Your task to perform on an android device: open app "Cash App" (install if not already installed) and go to login screen Image 0: 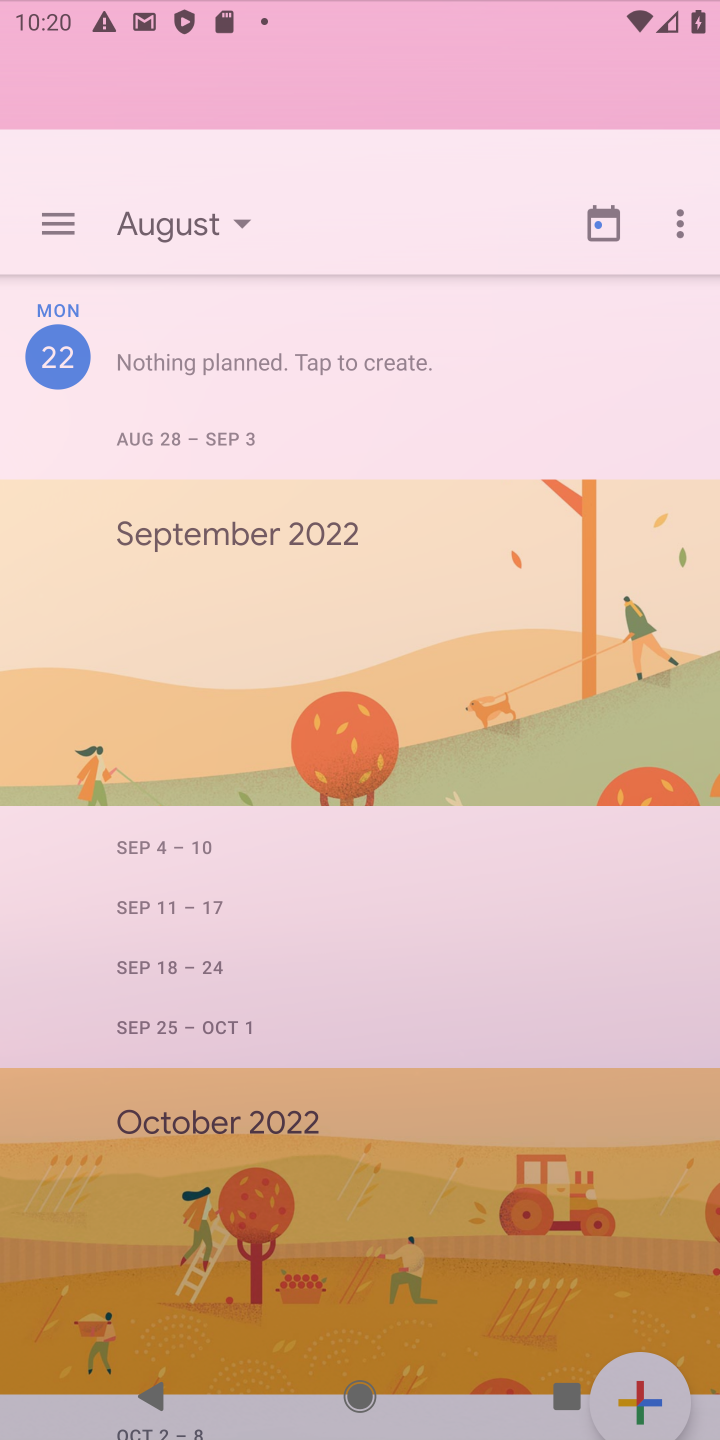
Step 0: click (583, 589)
Your task to perform on an android device: open app "Cash App" (install if not already installed) and go to login screen Image 1: 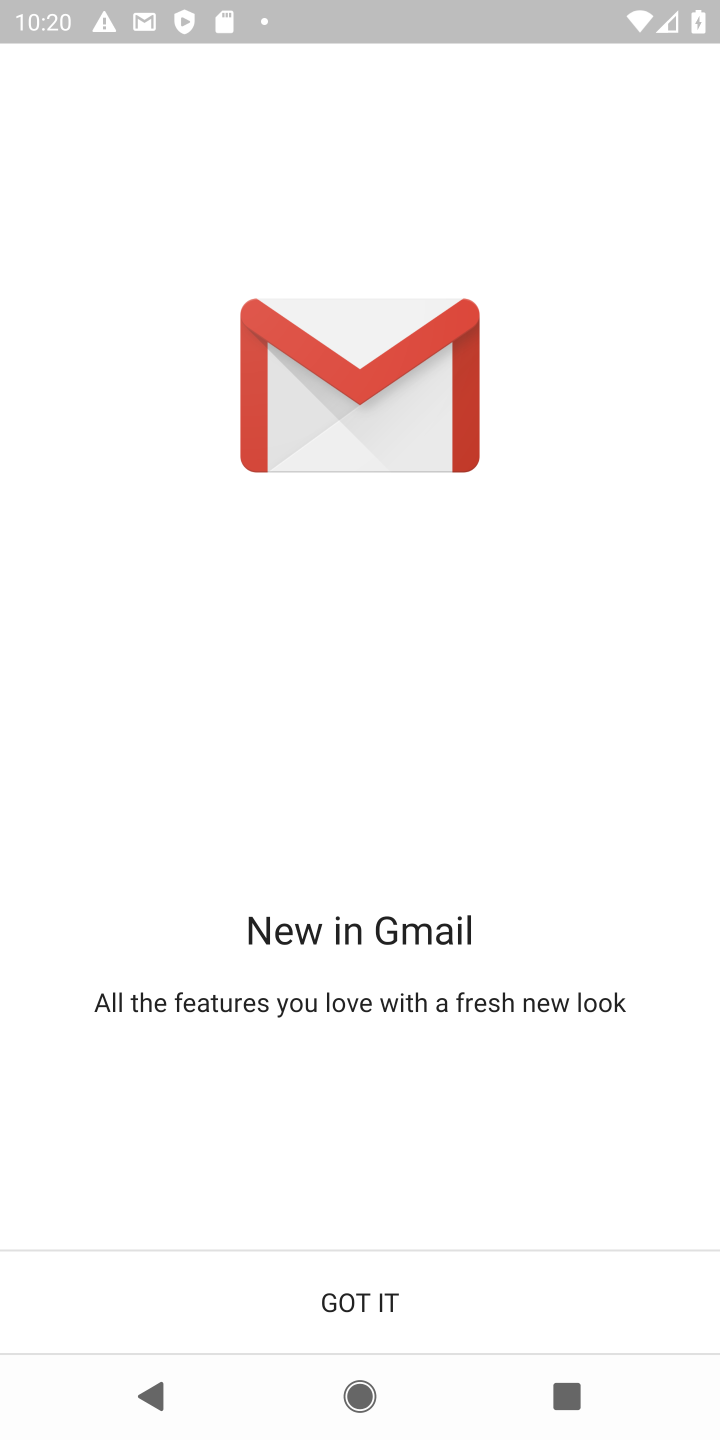
Step 1: press home button
Your task to perform on an android device: open app "Cash App" (install if not already installed) and go to login screen Image 2: 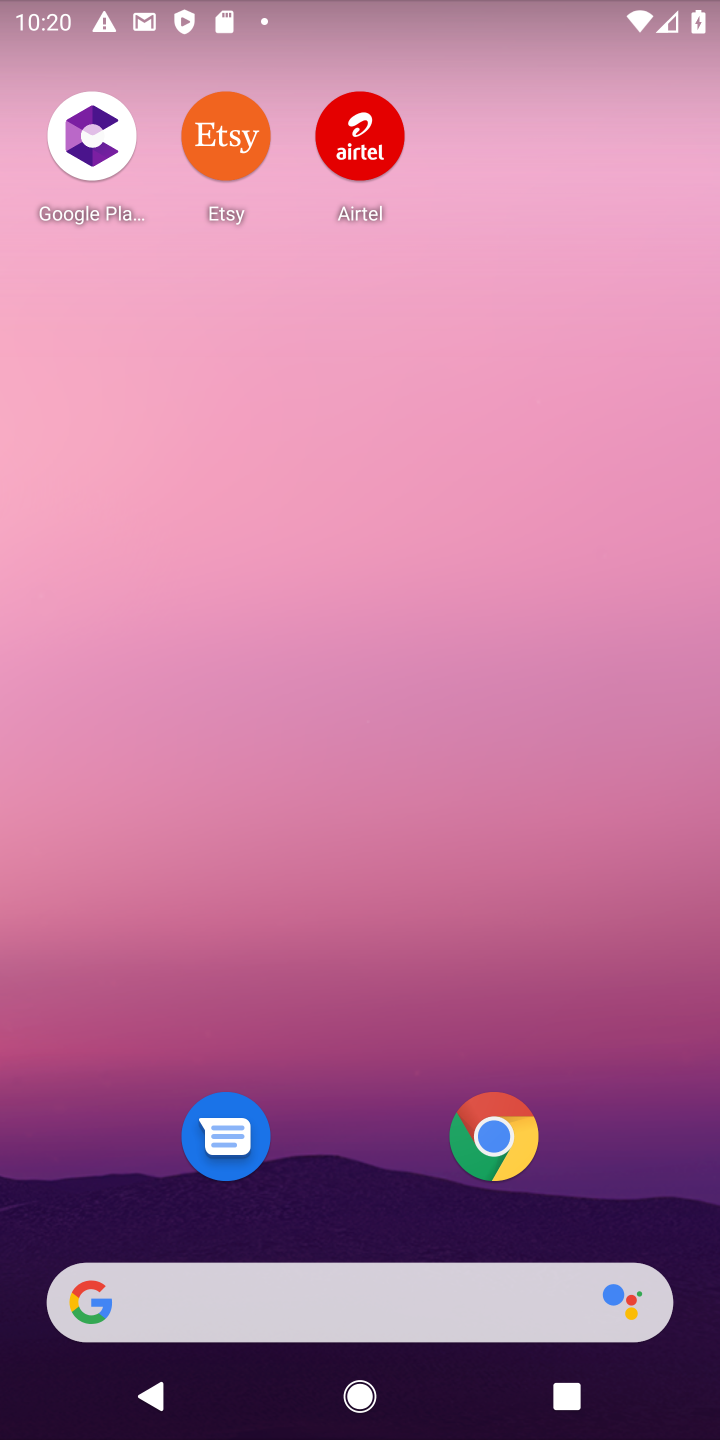
Step 2: drag from (340, 1268) to (274, 141)
Your task to perform on an android device: open app "Cash App" (install if not already installed) and go to login screen Image 3: 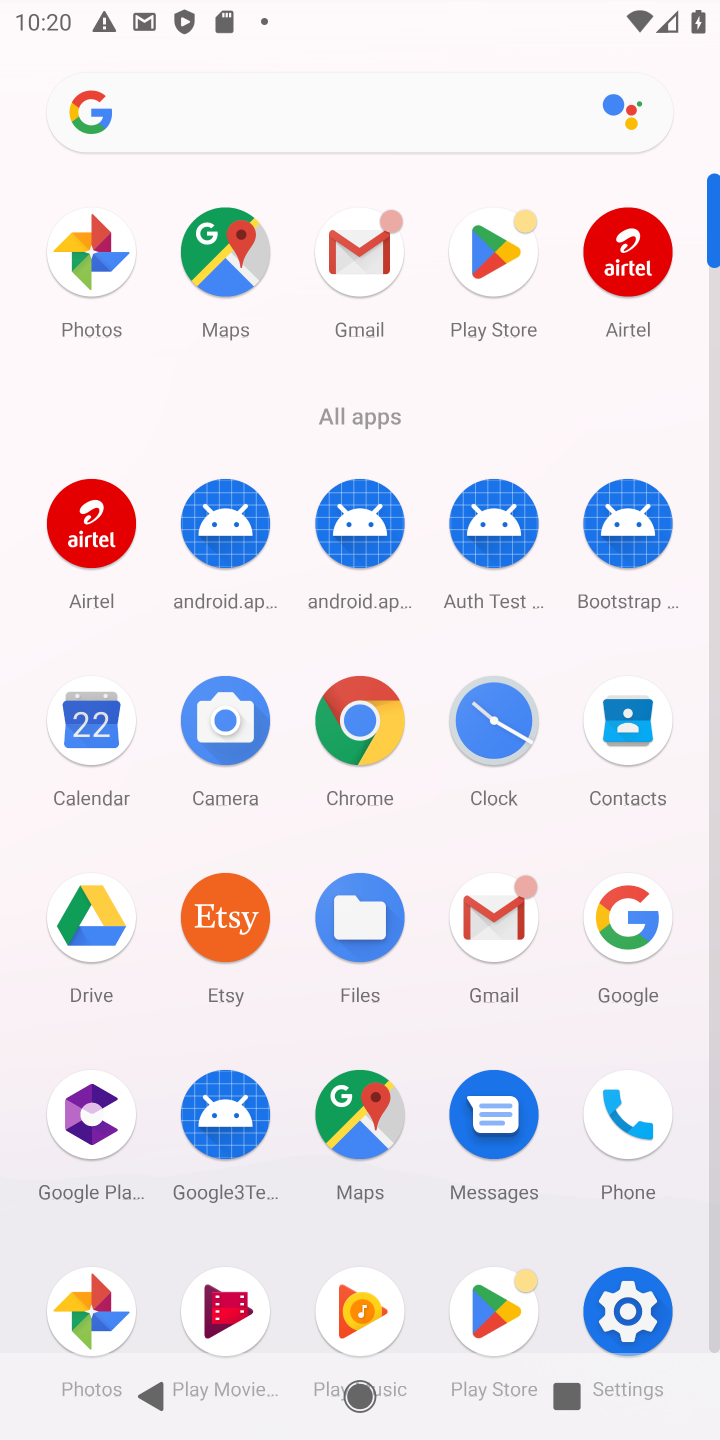
Step 3: click (481, 271)
Your task to perform on an android device: open app "Cash App" (install if not already installed) and go to login screen Image 4: 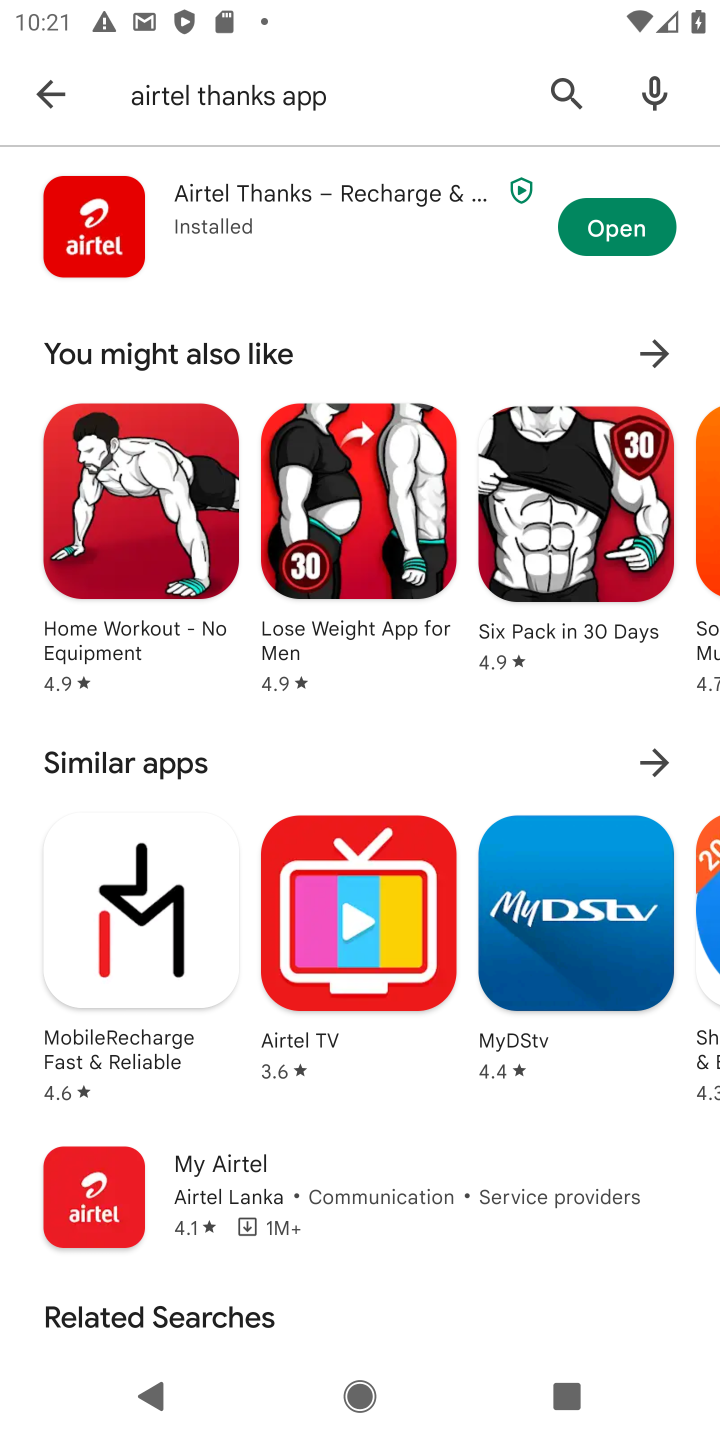
Step 4: click (553, 81)
Your task to perform on an android device: open app "Cash App" (install if not already installed) and go to login screen Image 5: 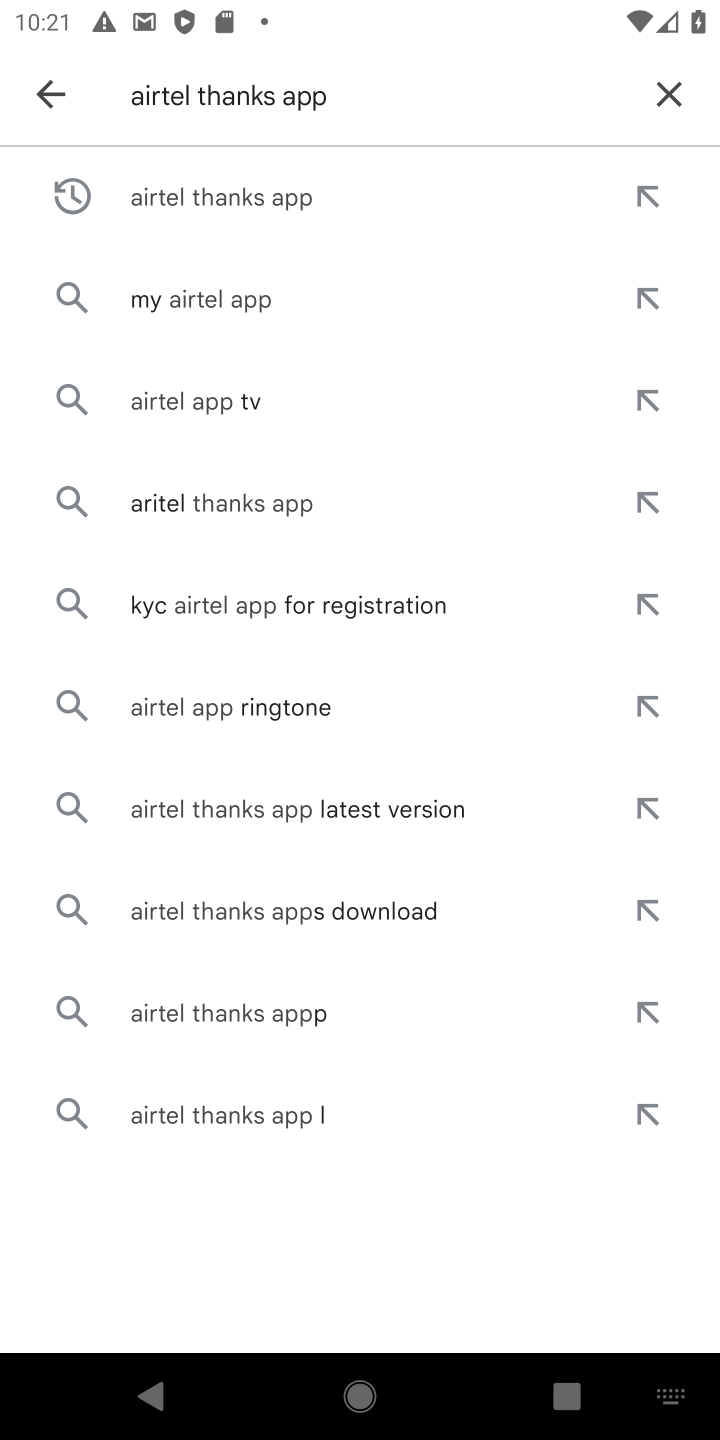
Step 5: click (662, 95)
Your task to perform on an android device: open app "Cash App" (install if not already installed) and go to login screen Image 6: 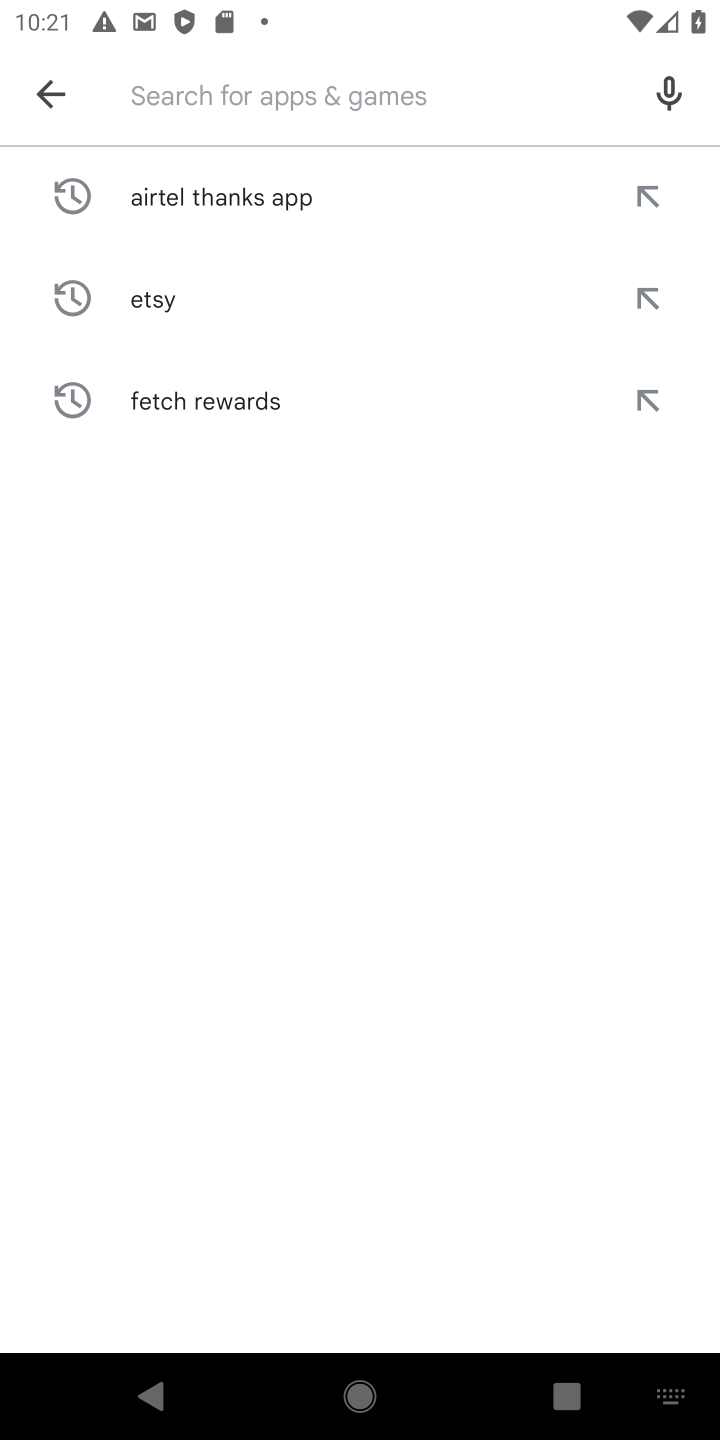
Step 6: type "cash app"
Your task to perform on an android device: open app "Cash App" (install if not already installed) and go to login screen Image 7: 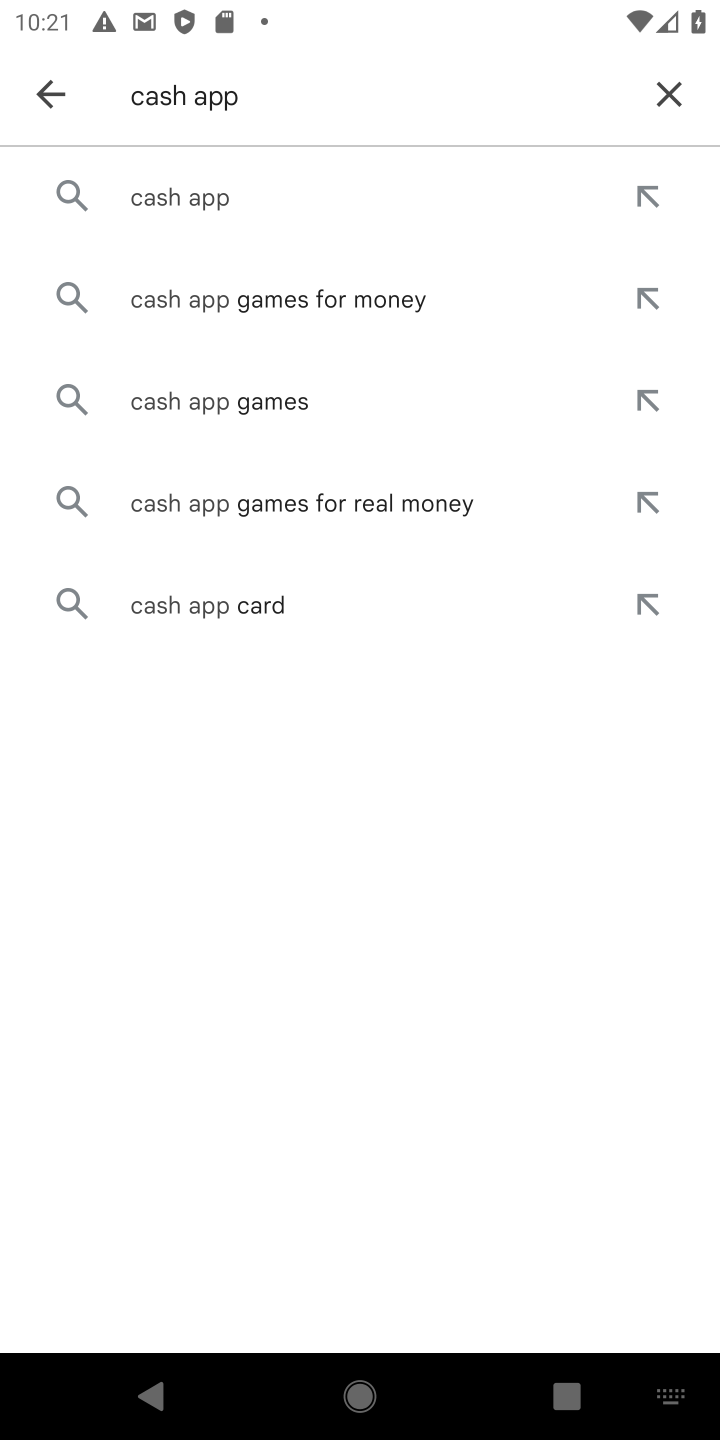
Step 7: click (244, 206)
Your task to perform on an android device: open app "Cash App" (install if not already installed) and go to login screen Image 8: 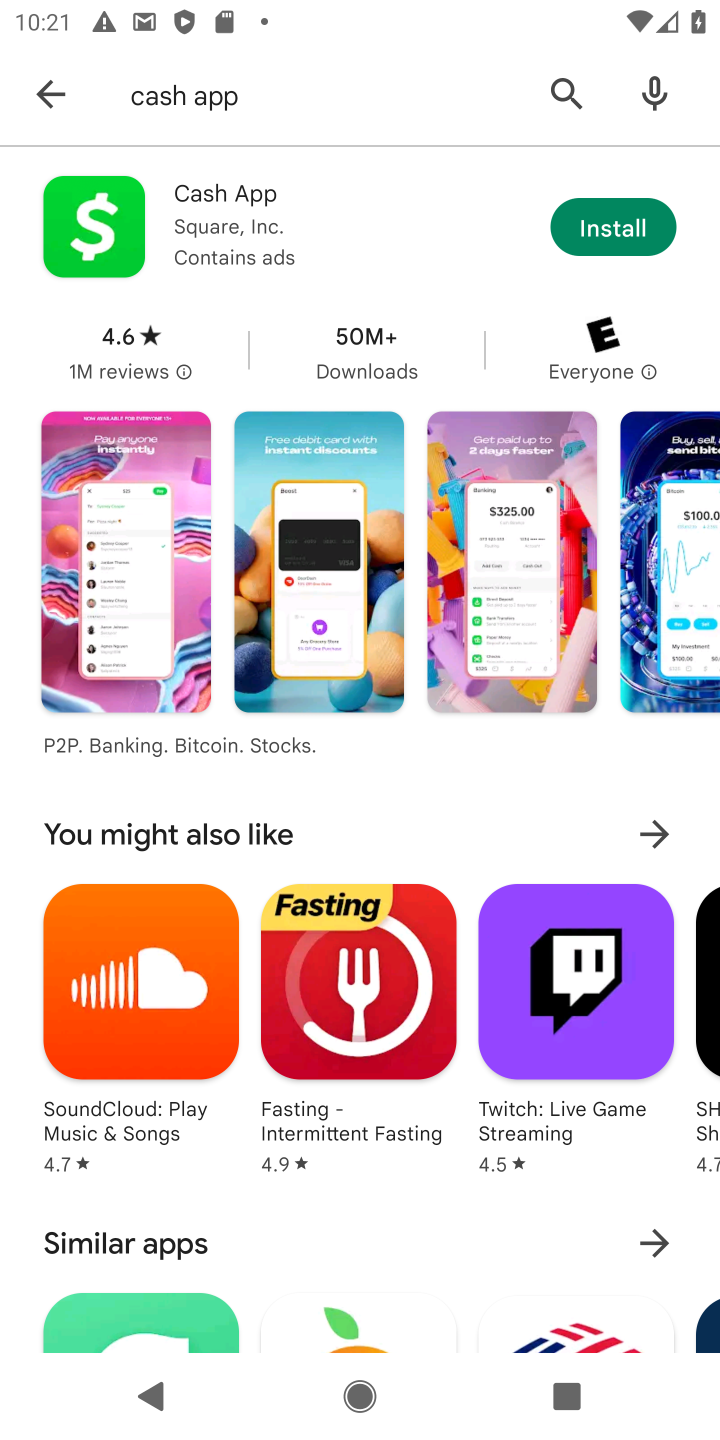
Step 8: click (594, 243)
Your task to perform on an android device: open app "Cash App" (install if not already installed) and go to login screen Image 9: 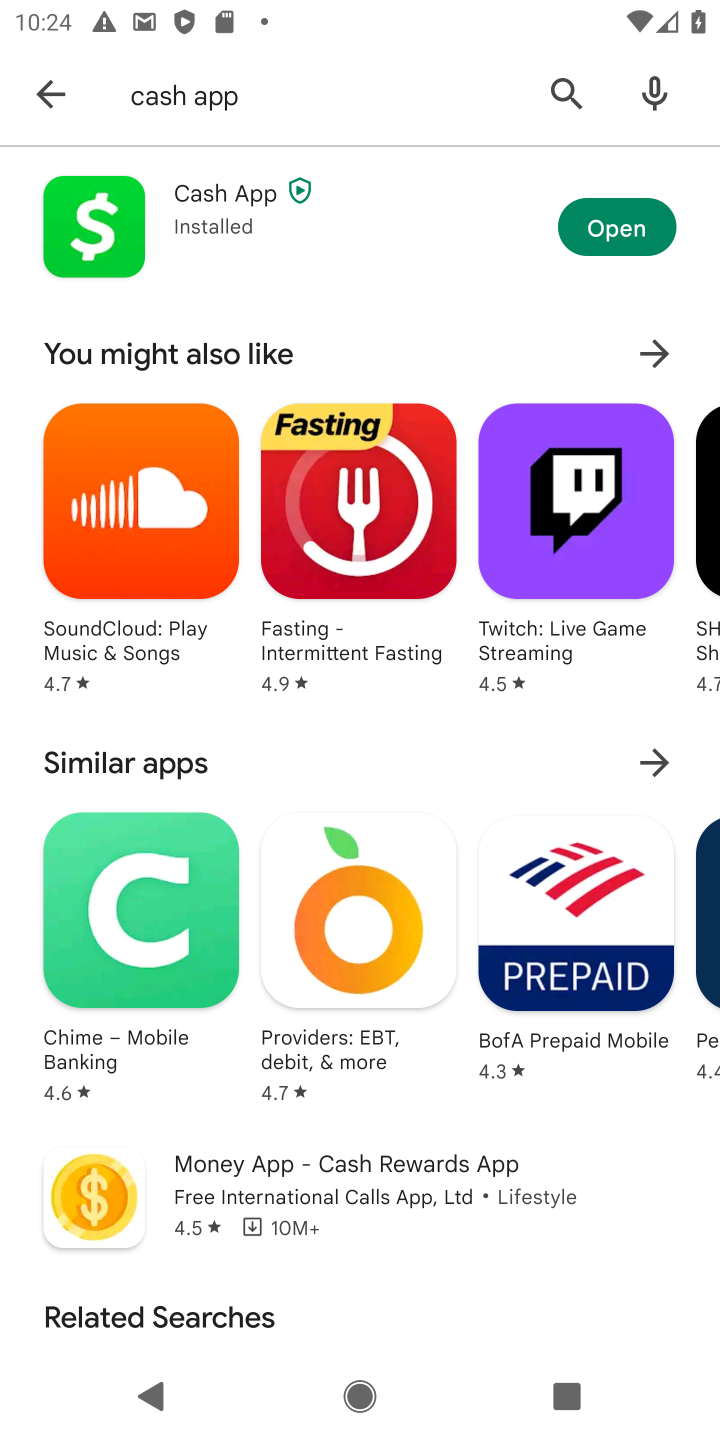
Step 9: click (633, 235)
Your task to perform on an android device: open app "Cash App" (install if not already installed) and go to login screen Image 10: 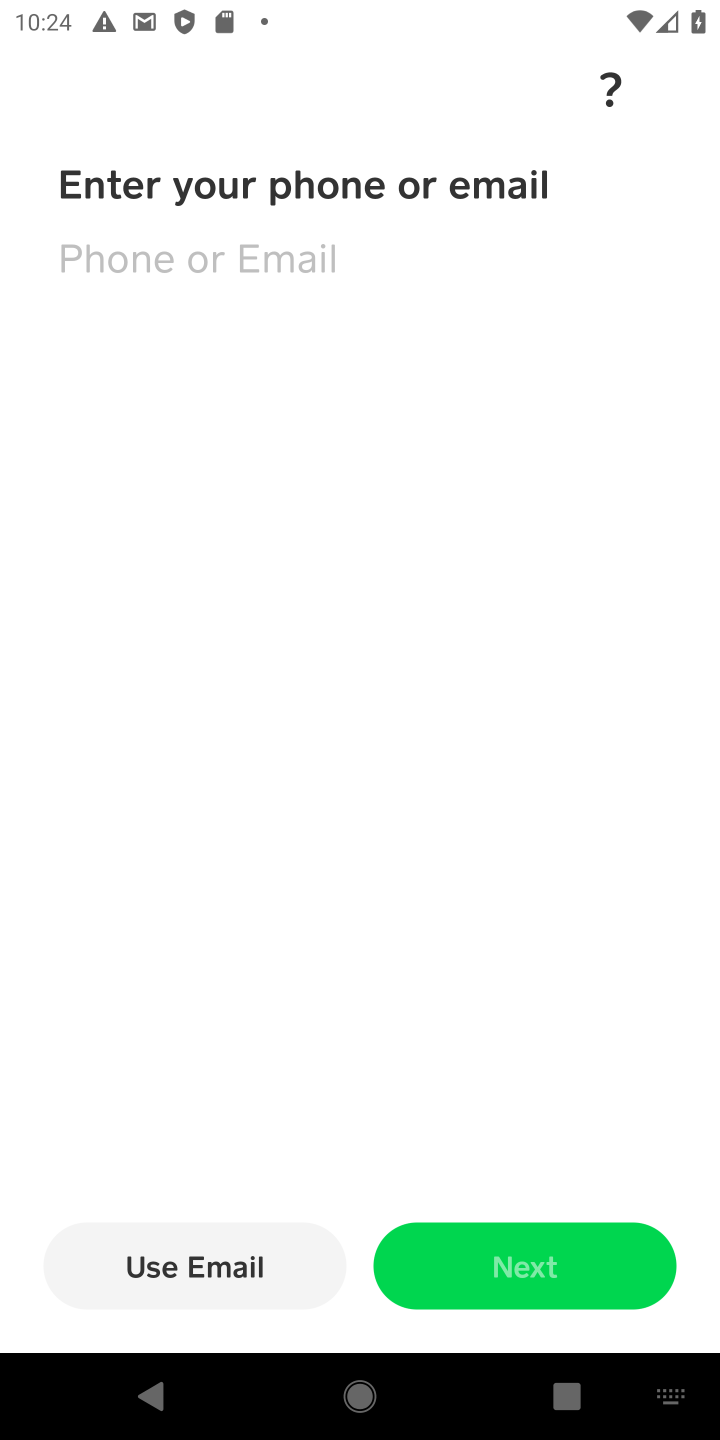
Step 10: task complete